Your task to perform on an android device: turn on notifications settings in the gmail app Image 0: 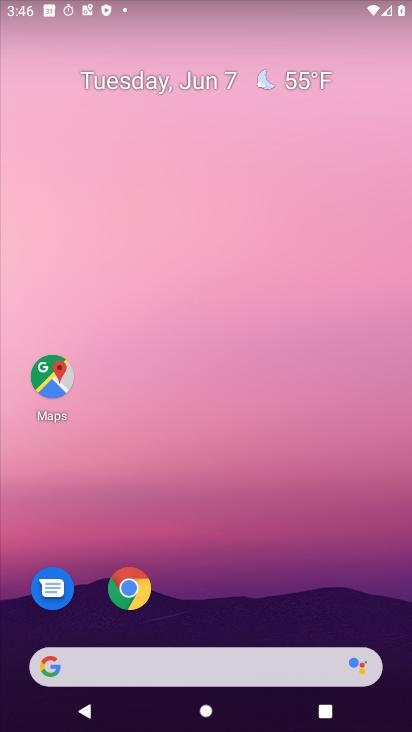
Step 0: press home button
Your task to perform on an android device: turn on notifications settings in the gmail app Image 1: 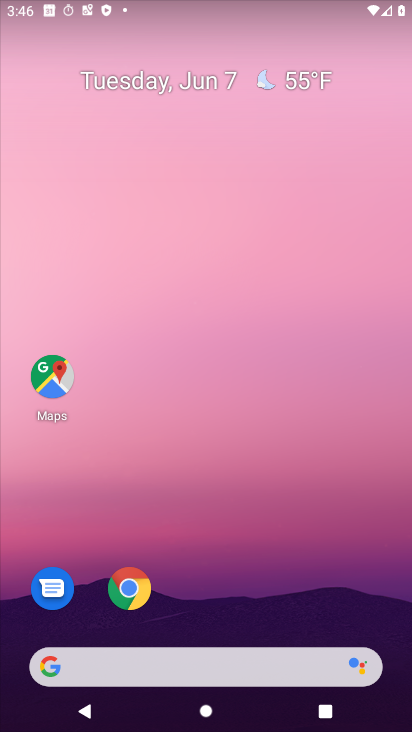
Step 1: drag from (246, 616) to (231, 173)
Your task to perform on an android device: turn on notifications settings in the gmail app Image 2: 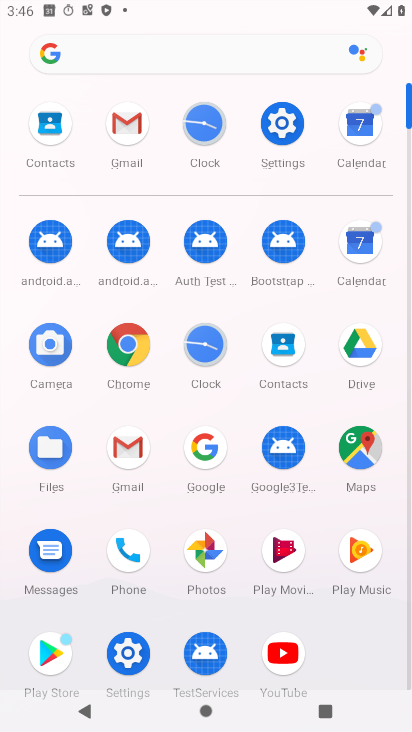
Step 2: click (141, 125)
Your task to perform on an android device: turn on notifications settings in the gmail app Image 3: 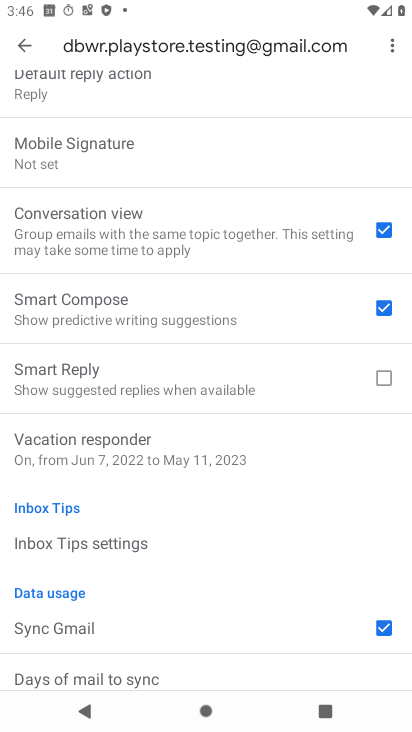
Step 3: click (26, 48)
Your task to perform on an android device: turn on notifications settings in the gmail app Image 4: 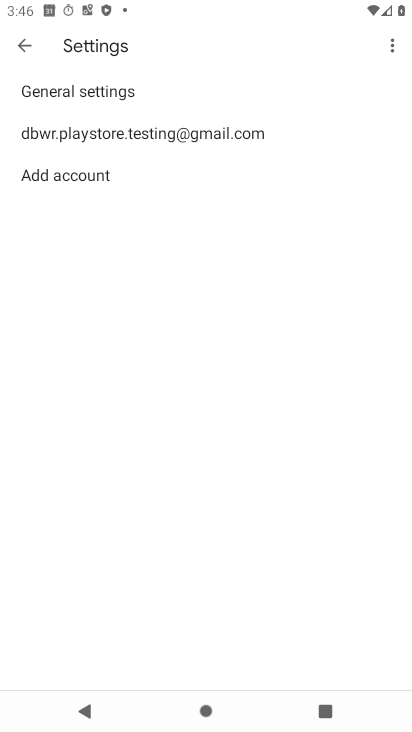
Step 4: click (63, 91)
Your task to perform on an android device: turn on notifications settings in the gmail app Image 5: 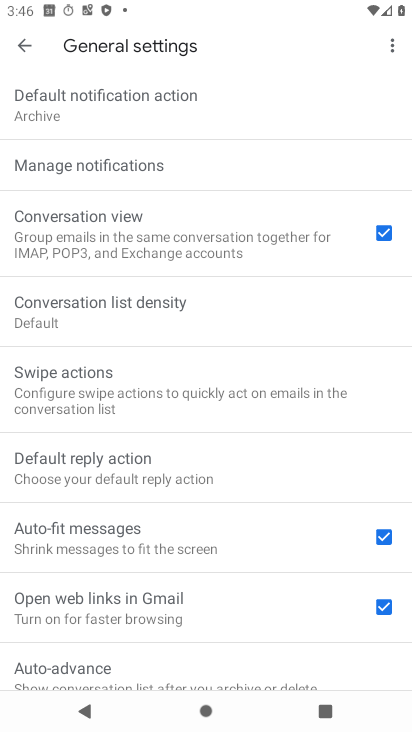
Step 5: click (69, 170)
Your task to perform on an android device: turn on notifications settings in the gmail app Image 6: 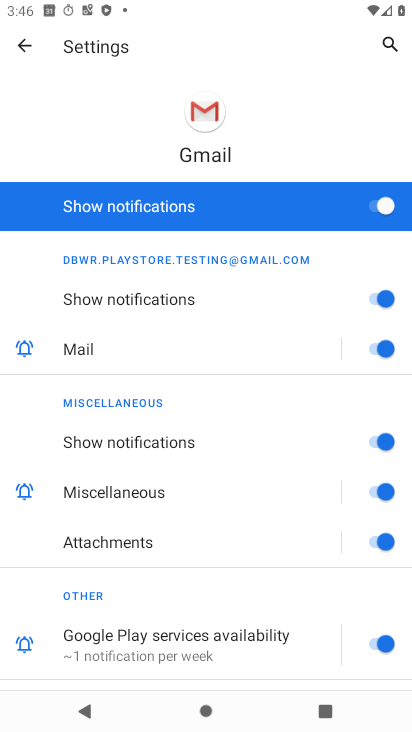
Step 6: task complete